Your task to perform on an android device: Search for Italian restaurants on Maps Image 0: 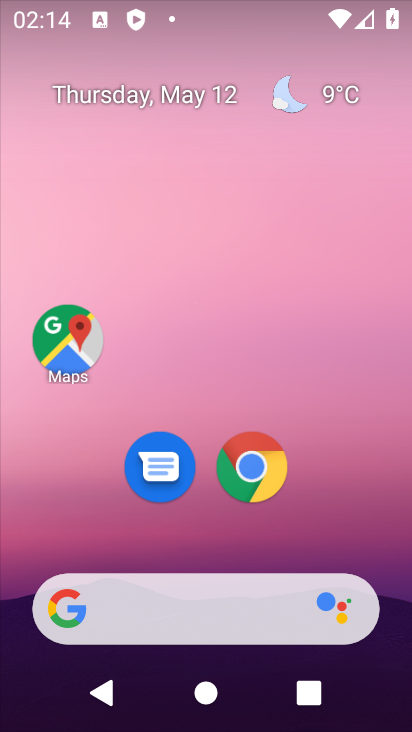
Step 0: drag from (299, 508) to (300, 255)
Your task to perform on an android device: Search for Italian restaurants on Maps Image 1: 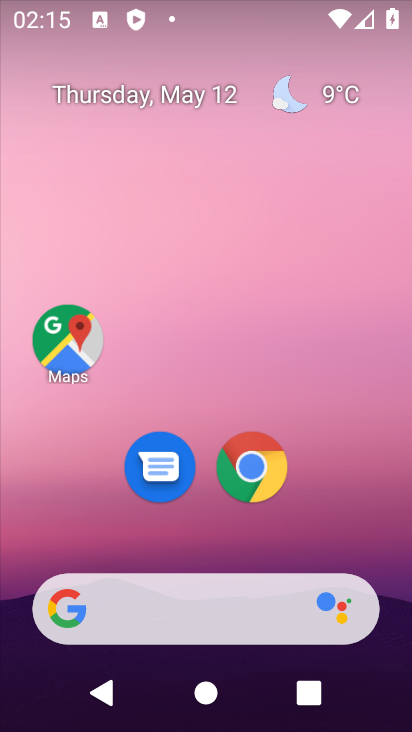
Step 1: drag from (293, 466) to (342, 200)
Your task to perform on an android device: Search for Italian restaurants on Maps Image 2: 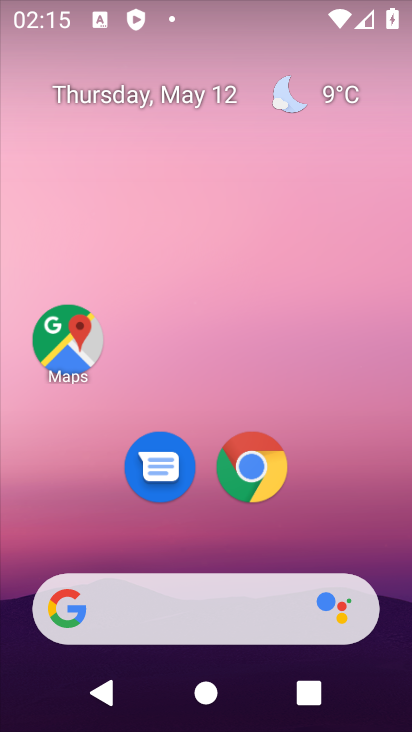
Step 2: drag from (255, 545) to (306, 208)
Your task to perform on an android device: Search for Italian restaurants on Maps Image 3: 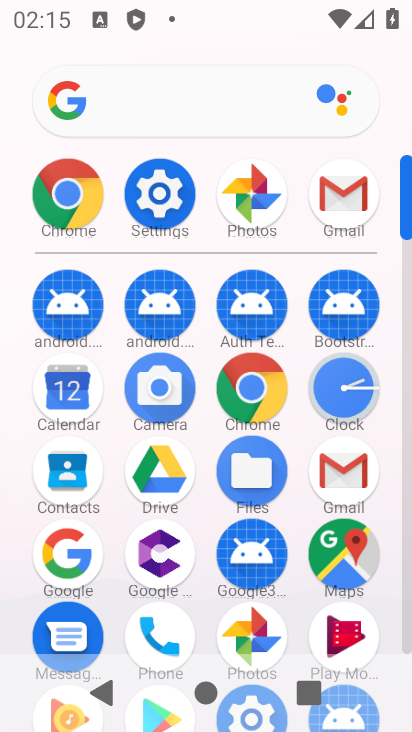
Step 3: click (329, 554)
Your task to perform on an android device: Search for Italian restaurants on Maps Image 4: 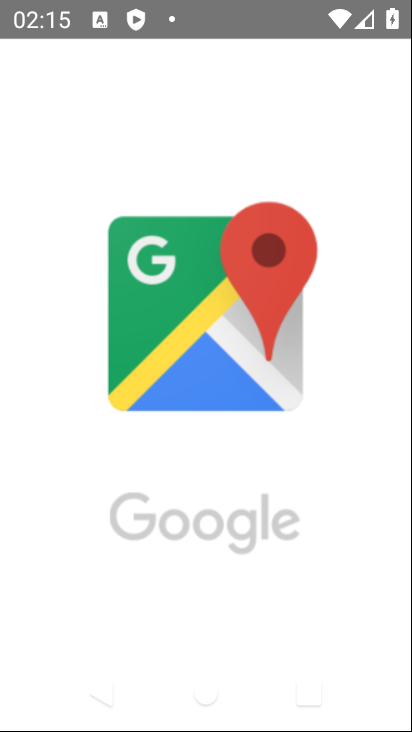
Step 4: click (160, 424)
Your task to perform on an android device: Search for Italian restaurants on Maps Image 5: 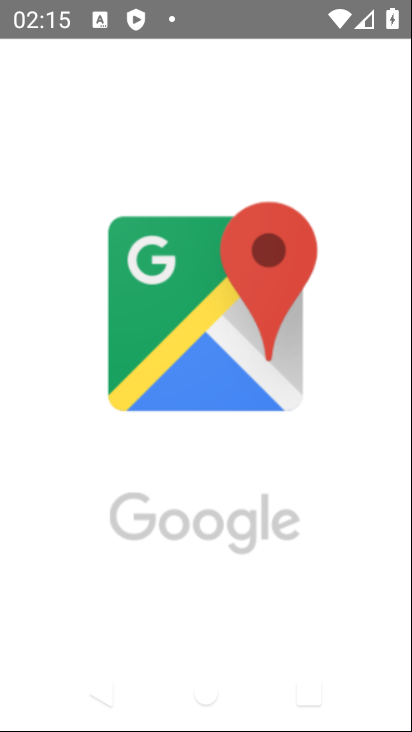
Step 5: task complete